Your task to perform on an android device: Open sound settings Image 0: 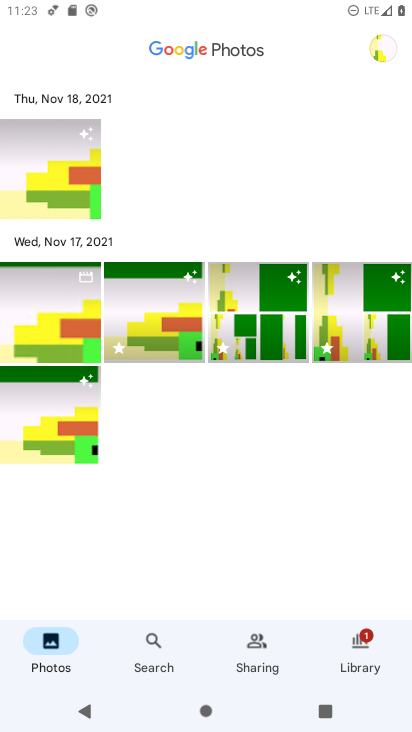
Step 0: press home button
Your task to perform on an android device: Open sound settings Image 1: 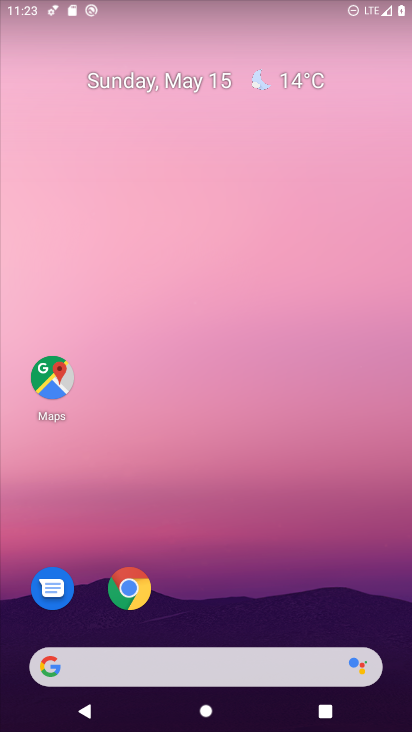
Step 1: drag from (205, 623) to (273, 27)
Your task to perform on an android device: Open sound settings Image 2: 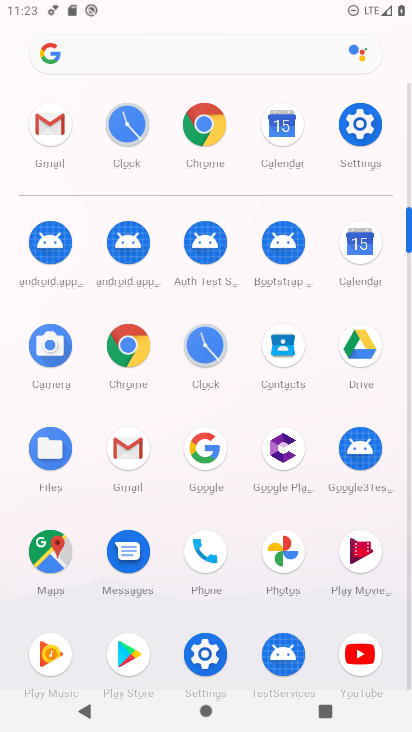
Step 2: click (208, 658)
Your task to perform on an android device: Open sound settings Image 3: 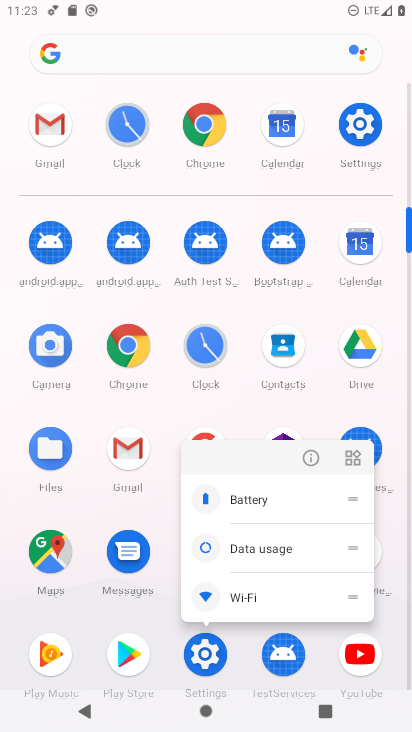
Step 3: click (190, 667)
Your task to perform on an android device: Open sound settings Image 4: 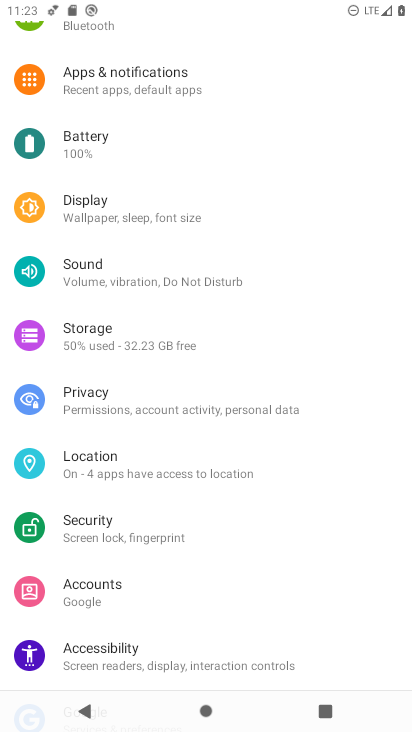
Step 4: drag from (121, 605) to (152, 451)
Your task to perform on an android device: Open sound settings Image 5: 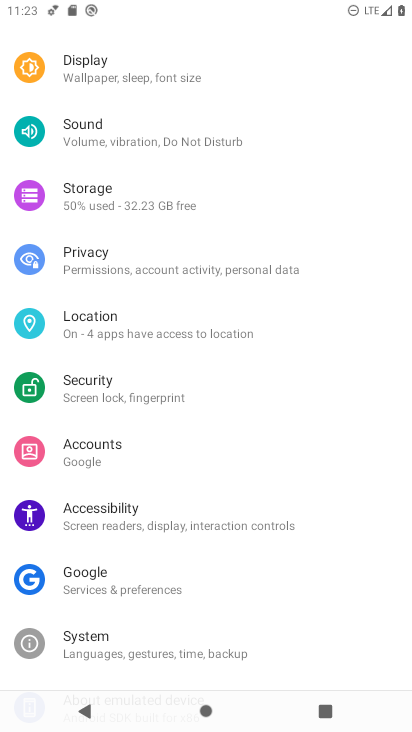
Step 5: click (160, 139)
Your task to perform on an android device: Open sound settings Image 6: 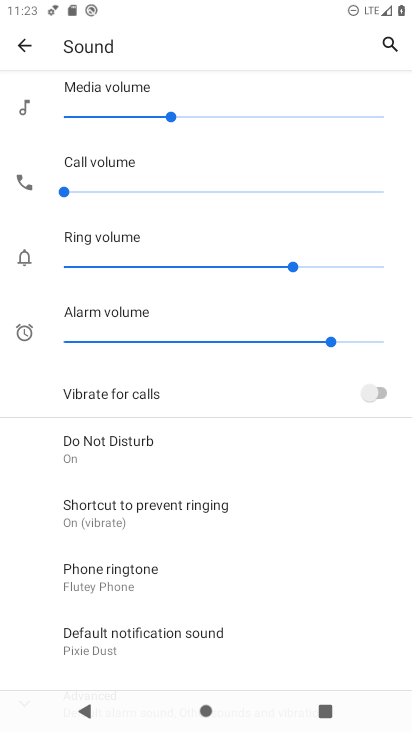
Step 6: task complete